Your task to perform on an android device: Go to Reddit.com Image 0: 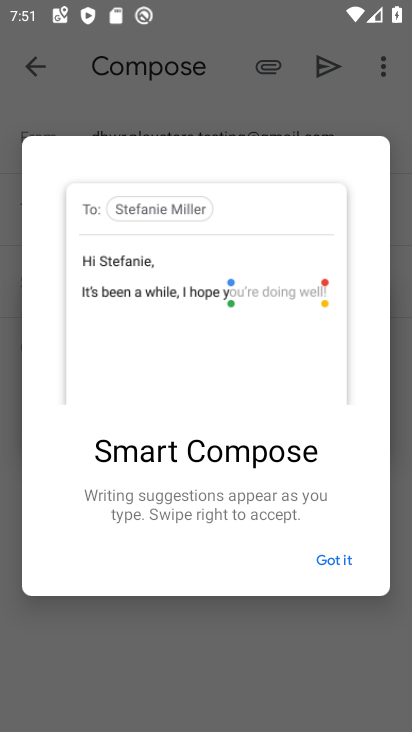
Step 0: press home button
Your task to perform on an android device: Go to Reddit.com Image 1: 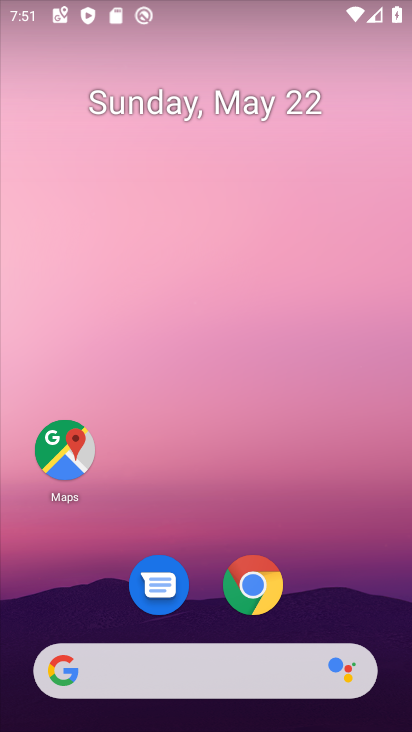
Step 1: click (266, 664)
Your task to perform on an android device: Go to Reddit.com Image 2: 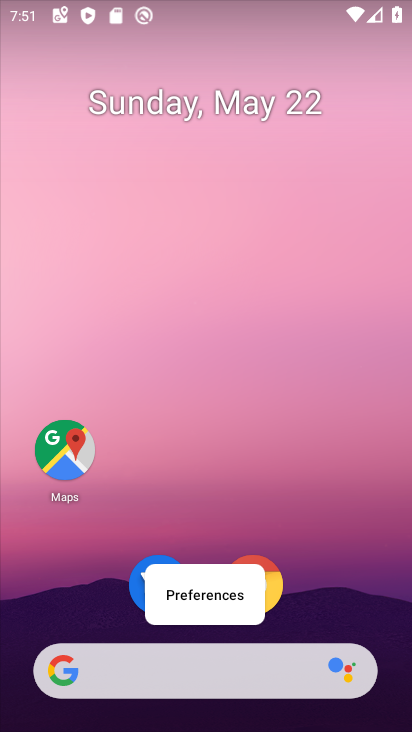
Step 2: click (241, 678)
Your task to perform on an android device: Go to Reddit.com Image 3: 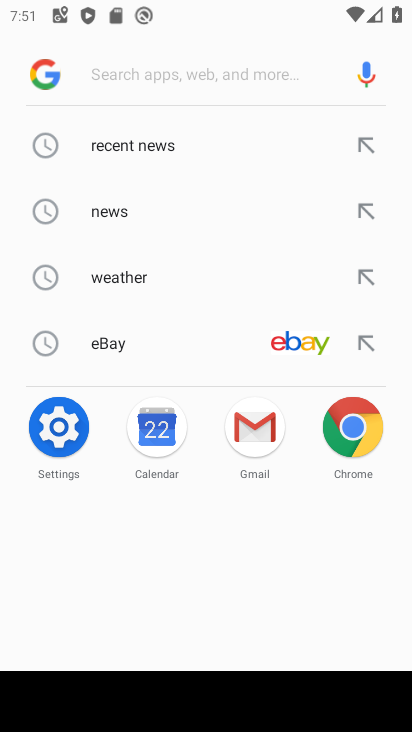
Step 3: type "reddit.com"
Your task to perform on an android device: Go to Reddit.com Image 4: 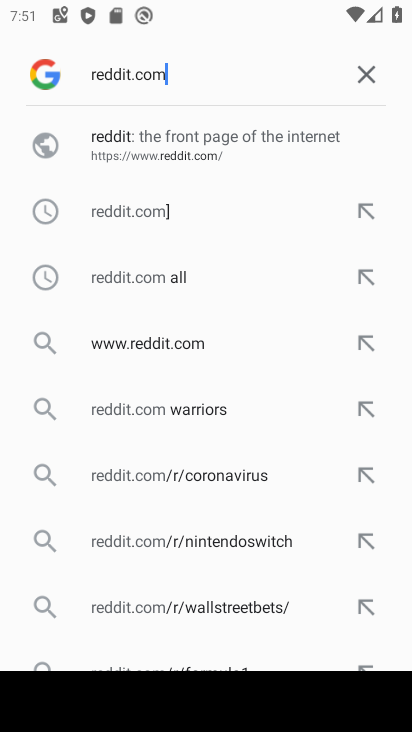
Step 4: click (95, 144)
Your task to perform on an android device: Go to Reddit.com Image 5: 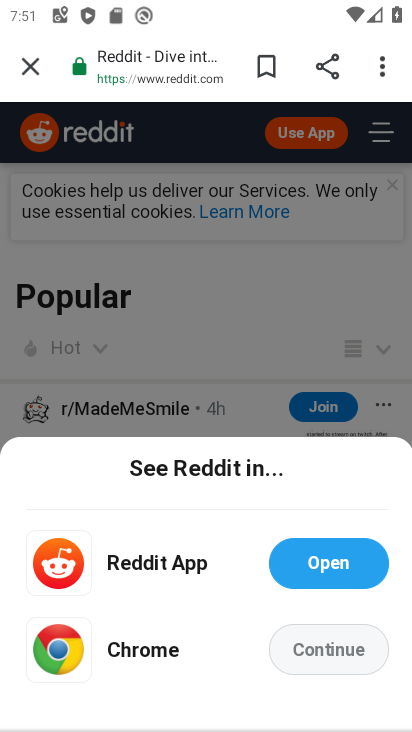
Step 5: task complete